Your task to perform on an android device: toggle priority inbox in the gmail app Image 0: 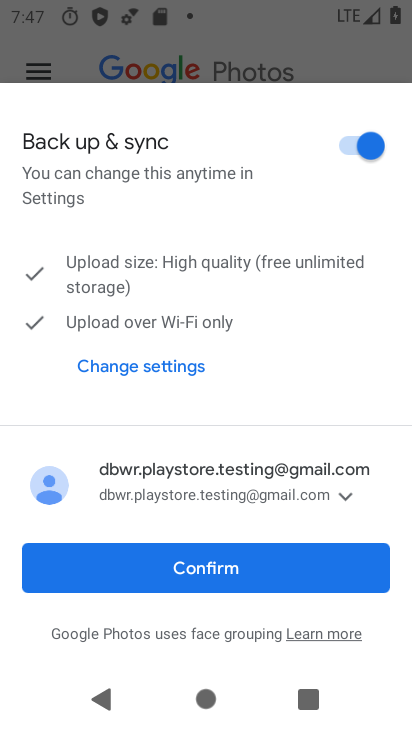
Step 0: press home button
Your task to perform on an android device: toggle priority inbox in the gmail app Image 1: 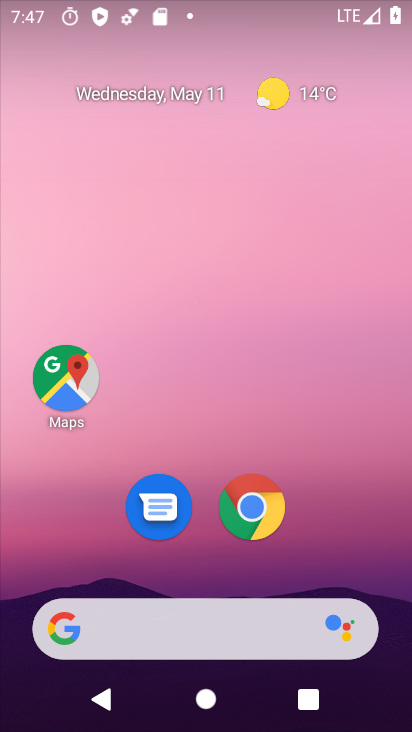
Step 1: drag from (361, 534) to (411, 36)
Your task to perform on an android device: toggle priority inbox in the gmail app Image 2: 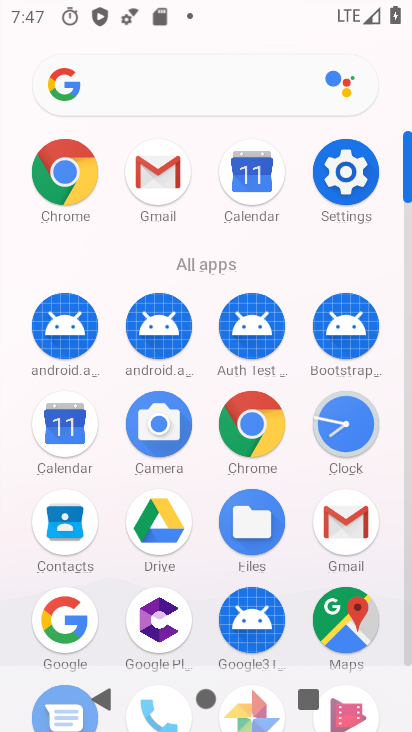
Step 2: click (151, 174)
Your task to perform on an android device: toggle priority inbox in the gmail app Image 3: 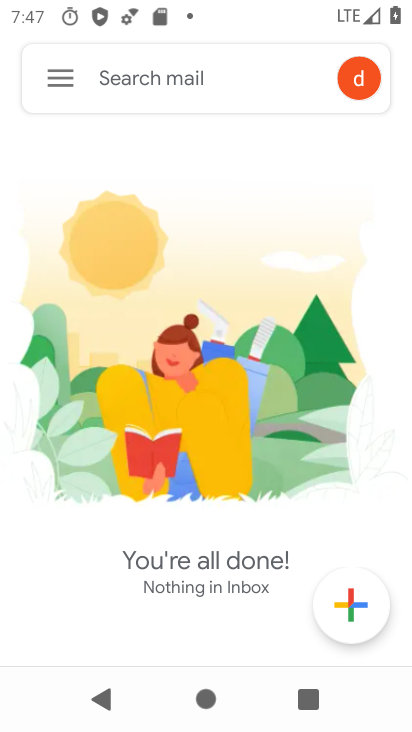
Step 3: click (54, 82)
Your task to perform on an android device: toggle priority inbox in the gmail app Image 4: 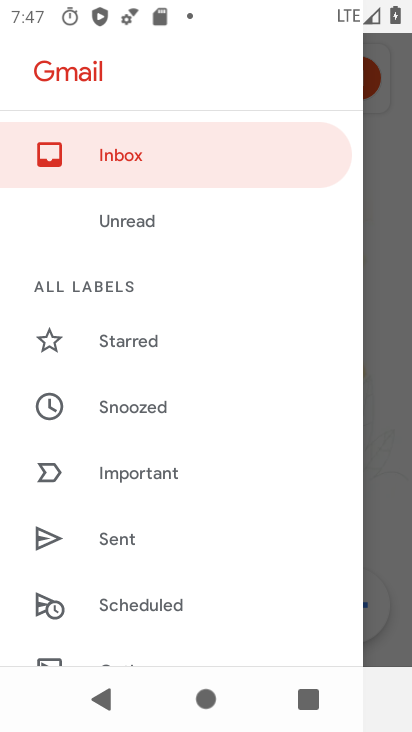
Step 4: drag from (142, 549) to (216, 148)
Your task to perform on an android device: toggle priority inbox in the gmail app Image 5: 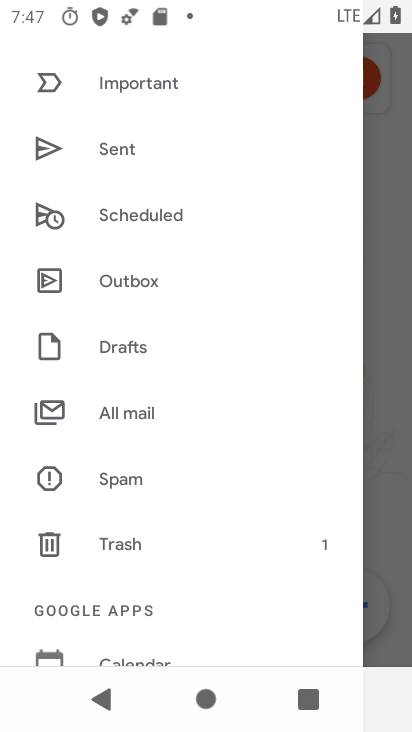
Step 5: drag from (158, 595) to (202, 132)
Your task to perform on an android device: toggle priority inbox in the gmail app Image 6: 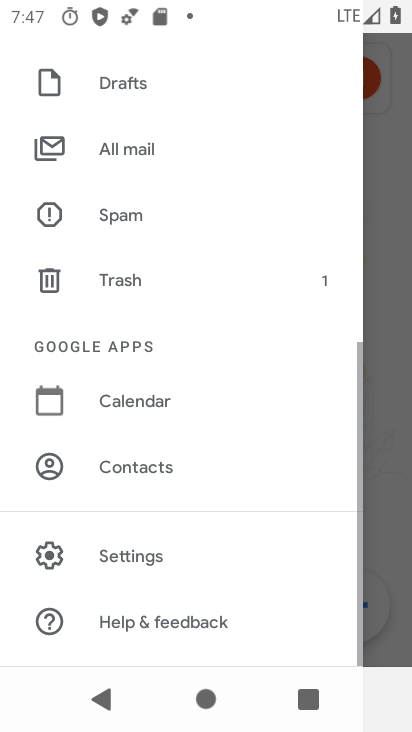
Step 6: click (136, 566)
Your task to perform on an android device: toggle priority inbox in the gmail app Image 7: 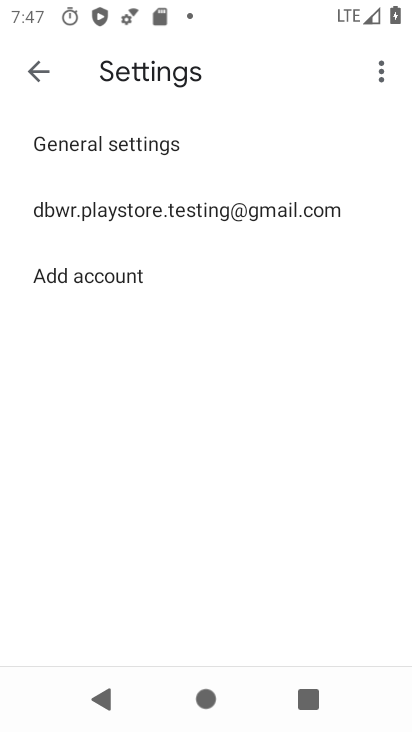
Step 7: click (180, 206)
Your task to perform on an android device: toggle priority inbox in the gmail app Image 8: 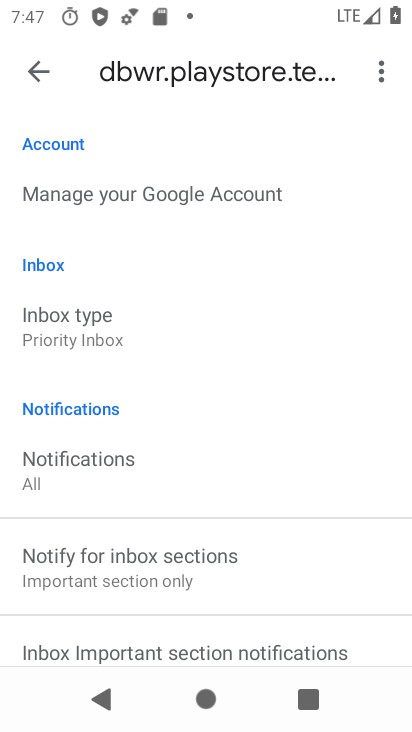
Step 8: click (88, 331)
Your task to perform on an android device: toggle priority inbox in the gmail app Image 9: 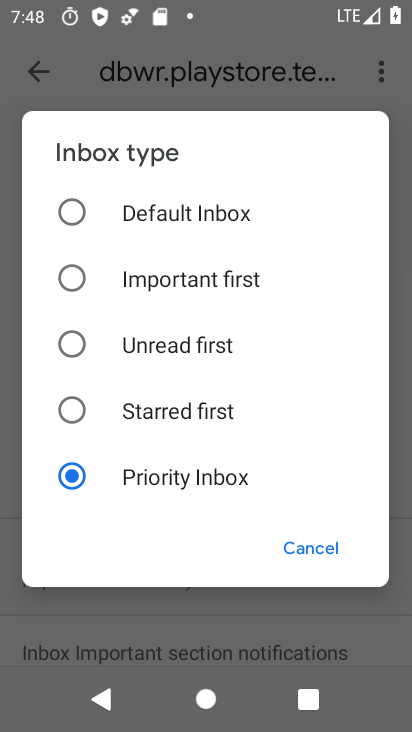
Step 9: click (83, 202)
Your task to perform on an android device: toggle priority inbox in the gmail app Image 10: 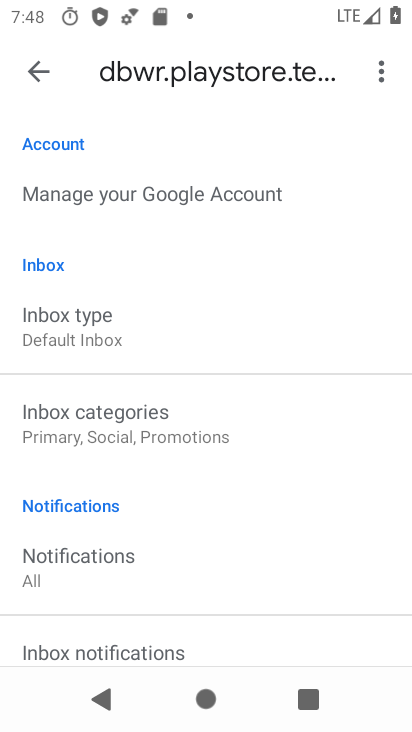
Step 10: task complete